Your task to perform on an android device: turn off wifi Image 0: 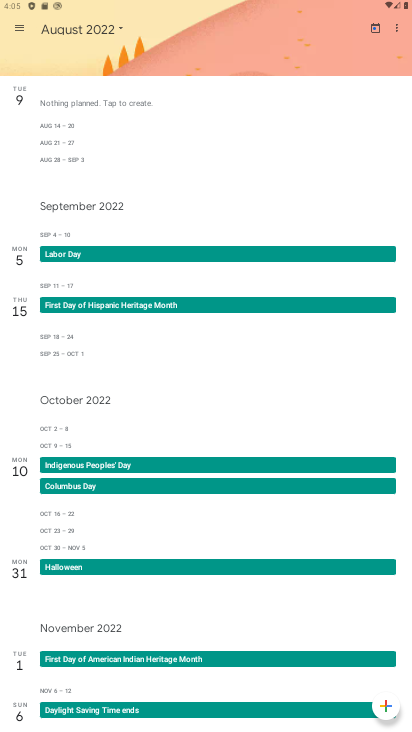
Step 0: press home button
Your task to perform on an android device: turn off wifi Image 1: 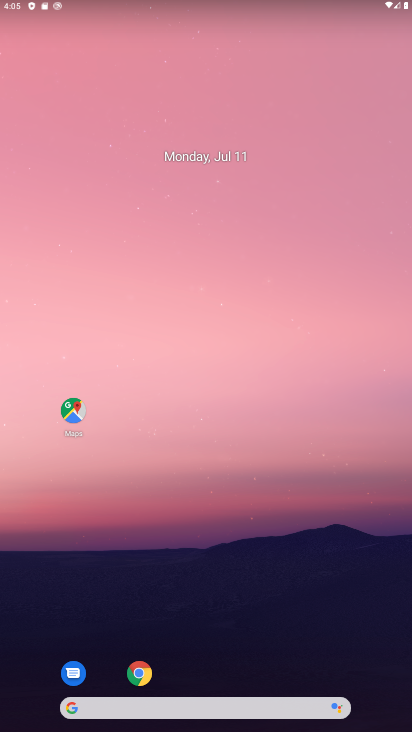
Step 1: drag from (309, 537) to (291, 59)
Your task to perform on an android device: turn off wifi Image 2: 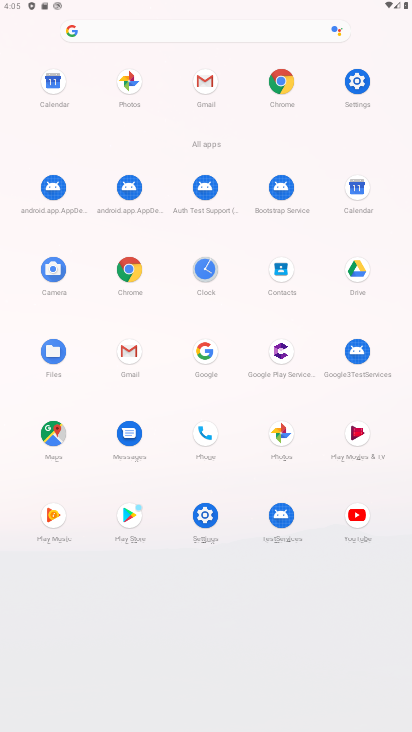
Step 2: click (356, 84)
Your task to perform on an android device: turn off wifi Image 3: 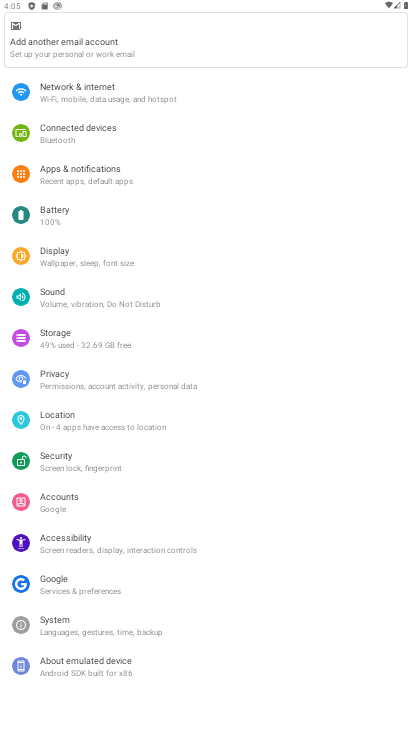
Step 3: click (102, 104)
Your task to perform on an android device: turn off wifi Image 4: 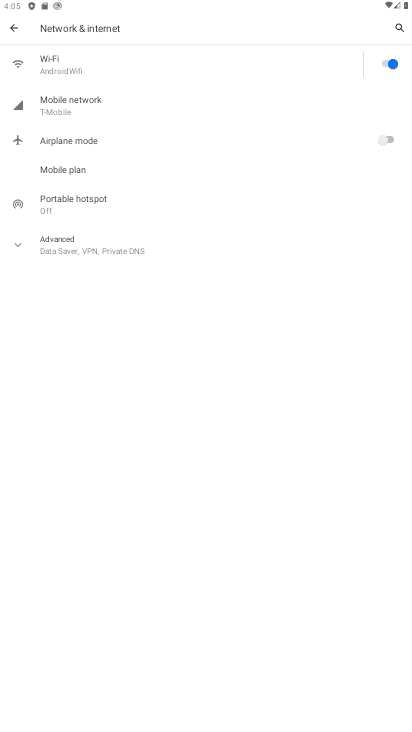
Step 4: click (393, 59)
Your task to perform on an android device: turn off wifi Image 5: 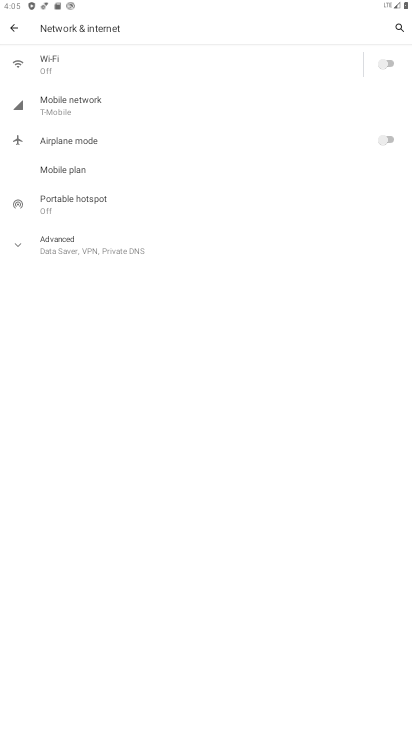
Step 5: task complete